Your task to perform on an android device: Open Youtube and go to the subscriptions tab Image 0: 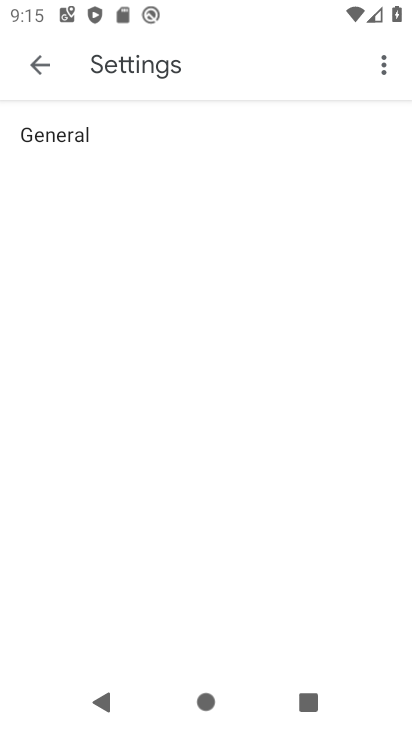
Step 0: press home button
Your task to perform on an android device: Open Youtube and go to the subscriptions tab Image 1: 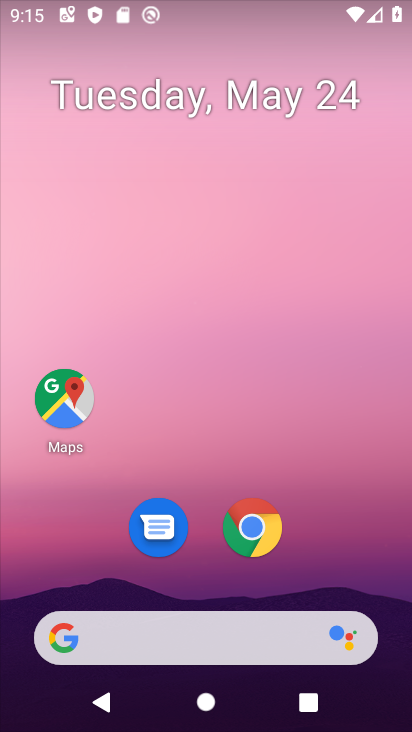
Step 1: drag from (197, 529) to (256, 24)
Your task to perform on an android device: Open Youtube and go to the subscriptions tab Image 2: 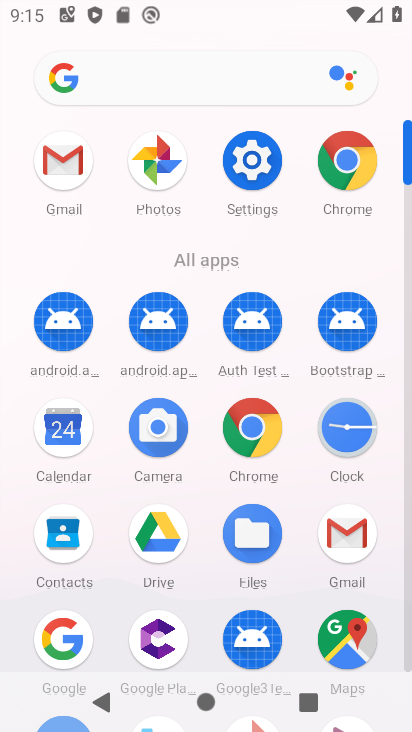
Step 2: drag from (200, 646) to (243, 154)
Your task to perform on an android device: Open Youtube and go to the subscriptions tab Image 3: 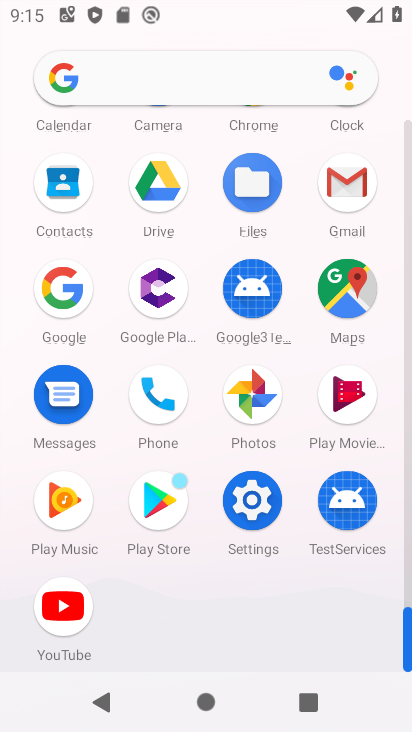
Step 3: click (54, 609)
Your task to perform on an android device: Open Youtube and go to the subscriptions tab Image 4: 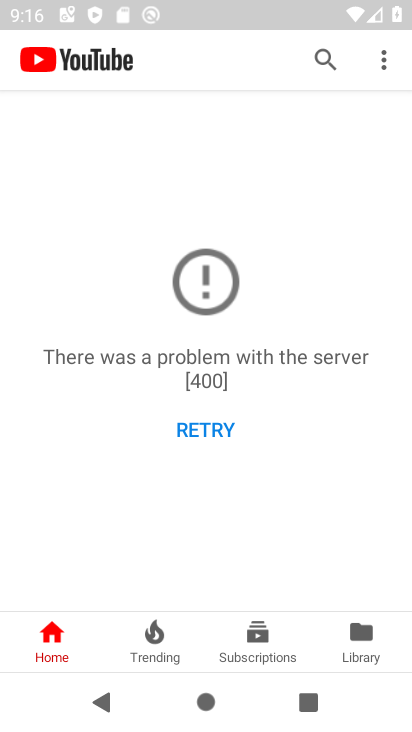
Step 4: click (257, 645)
Your task to perform on an android device: Open Youtube and go to the subscriptions tab Image 5: 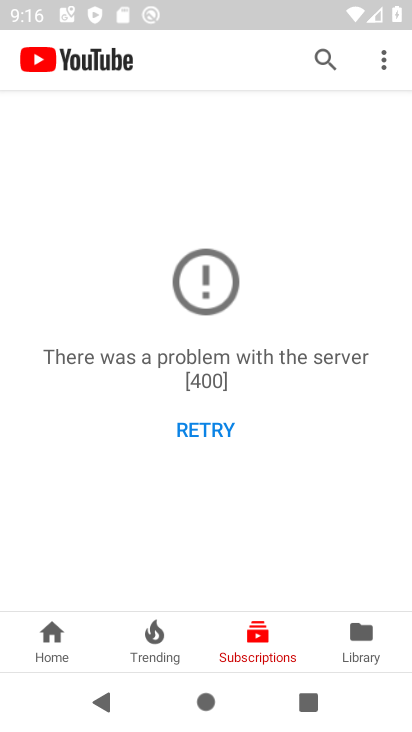
Step 5: task complete